Your task to perform on an android device: choose inbox layout in the gmail app Image 0: 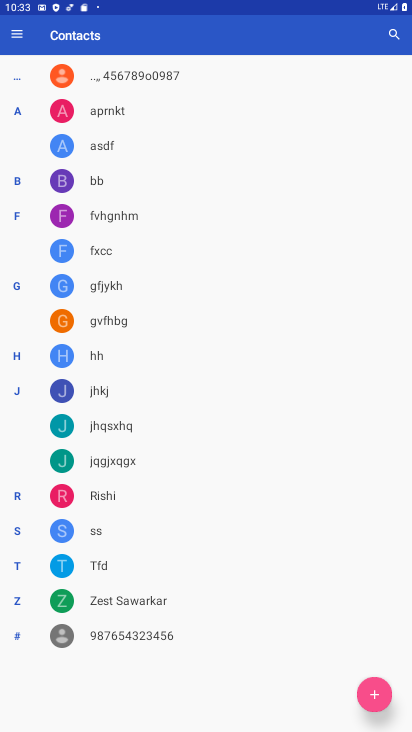
Step 0: press home button
Your task to perform on an android device: choose inbox layout in the gmail app Image 1: 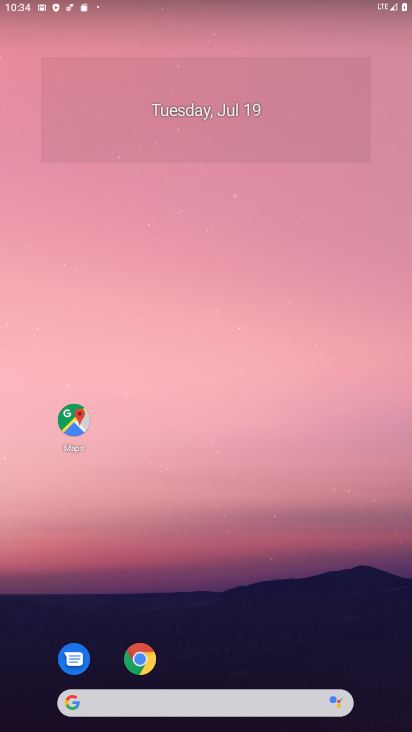
Step 1: drag from (247, 555) to (151, 240)
Your task to perform on an android device: choose inbox layout in the gmail app Image 2: 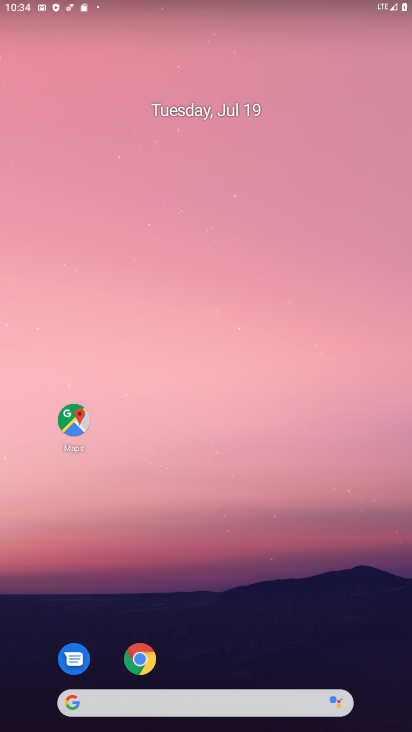
Step 2: drag from (289, 518) to (238, 222)
Your task to perform on an android device: choose inbox layout in the gmail app Image 3: 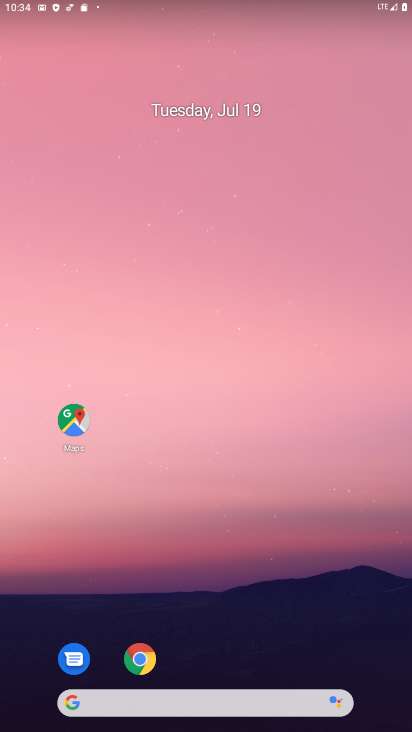
Step 3: drag from (323, 652) to (169, 257)
Your task to perform on an android device: choose inbox layout in the gmail app Image 4: 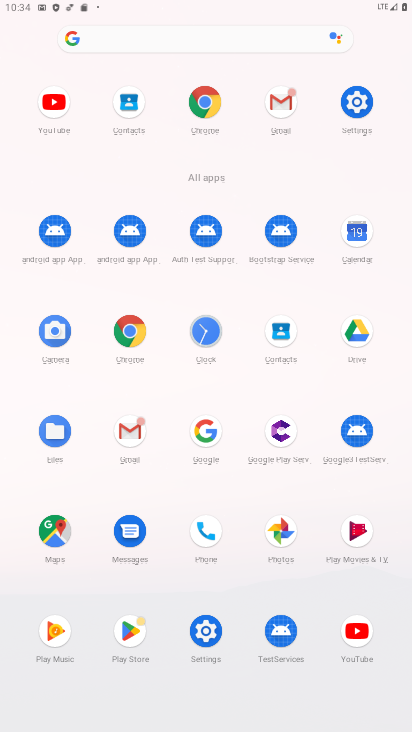
Step 4: click (289, 105)
Your task to perform on an android device: choose inbox layout in the gmail app Image 5: 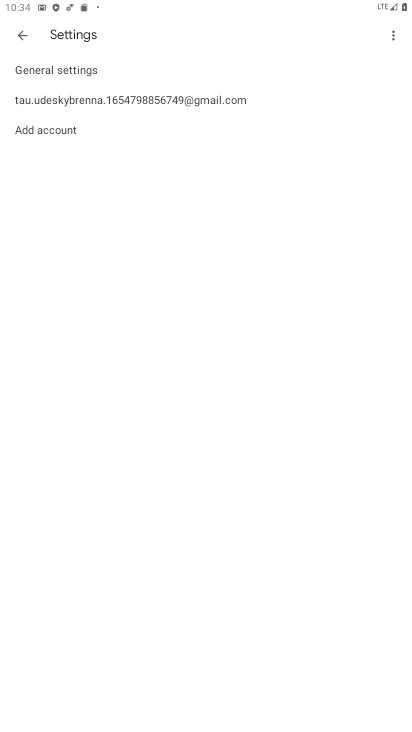
Step 5: click (20, 38)
Your task to perform on an android device: choose inbox layout in the gmail app Image 6: 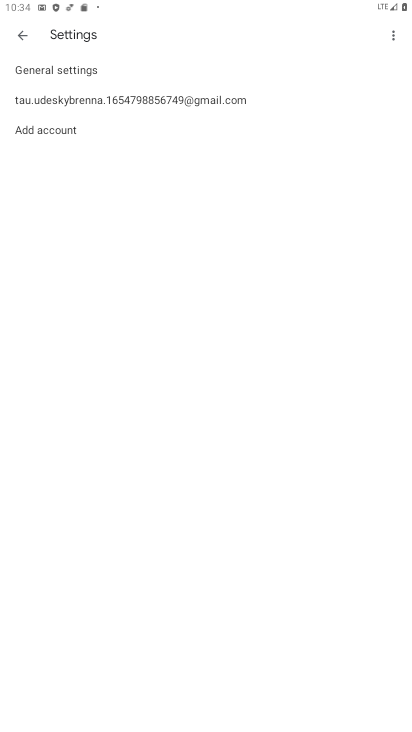
Step 6: click (23, 34)
Your task to perform on an android device: choose inbox layout in the gmail app Image 7: 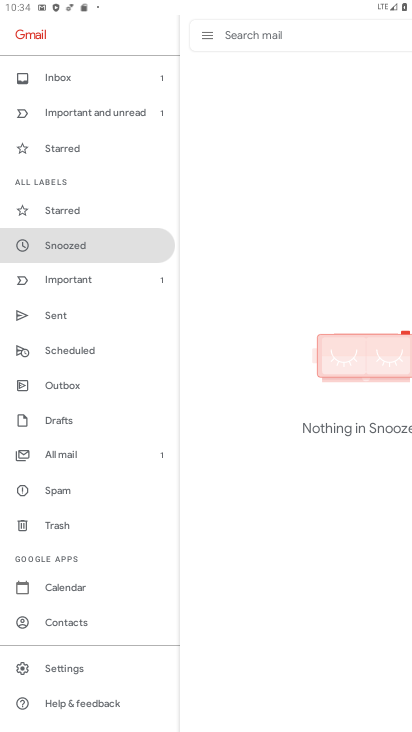
Step 7: click (59, 76)
Your task to perform on an android device: choose inbox layout in the gmail app Image 8: 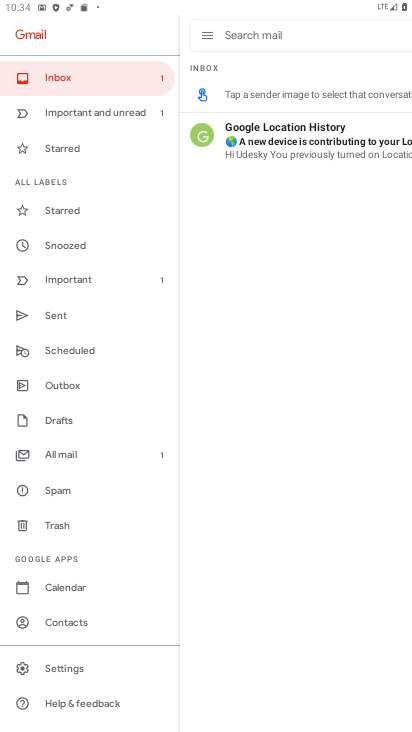
Step 8: task complete